Your task to perform on an android device: Open calendar and show me the second week of next month Image 0: 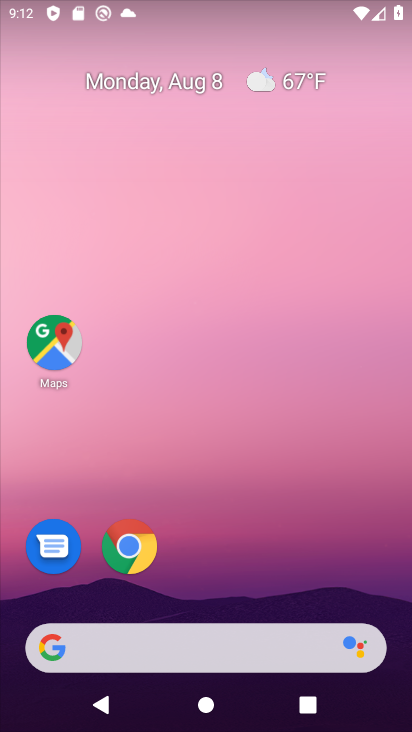
Step 0: drag from (257, 531) to (260, 174)
Your task to perform on an android device: Open calendar and show me the second week of next month Image 1: 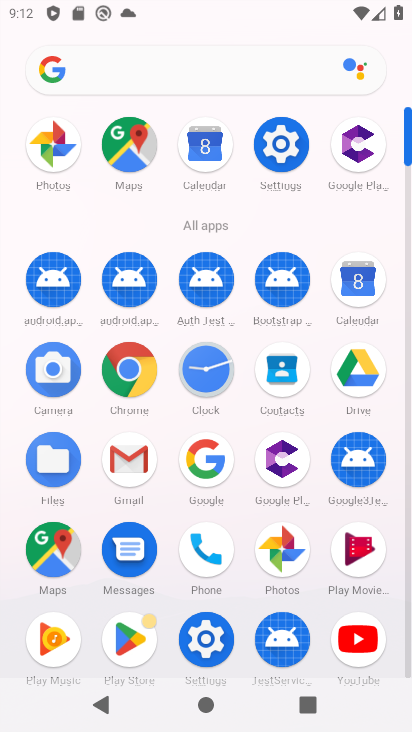
Step 1: click (364, 286)
Your task to perform on an android device: Open calendar and show me the second week of next month Image 2: 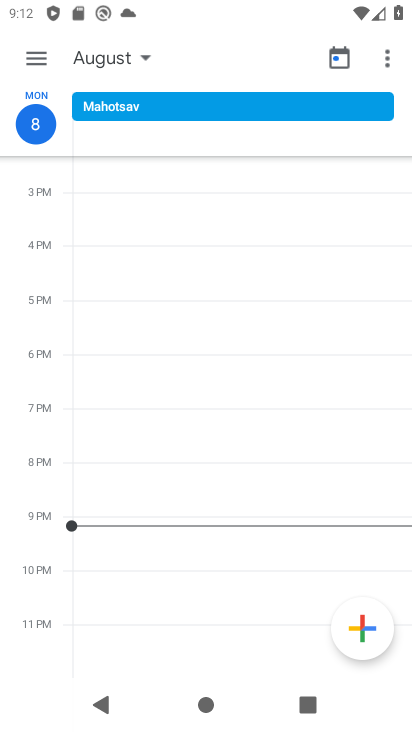
Step 2: task complete